Your task to perform on an android device: Check the weather Image 0: 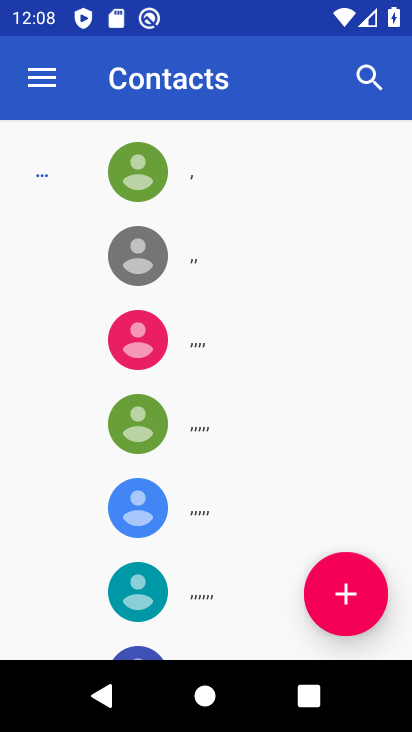
Step 0: press back button
Your task to perform on an android device: Check the weather Image 1: 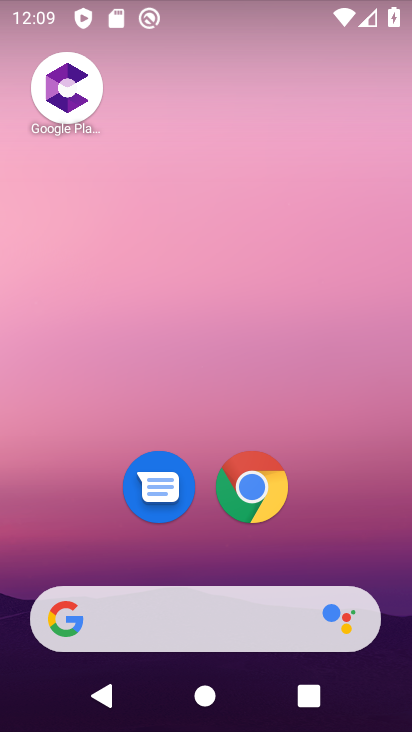
Step 1: click (188, 634)
Your task to perform on an android device: Check the weather Image 2: 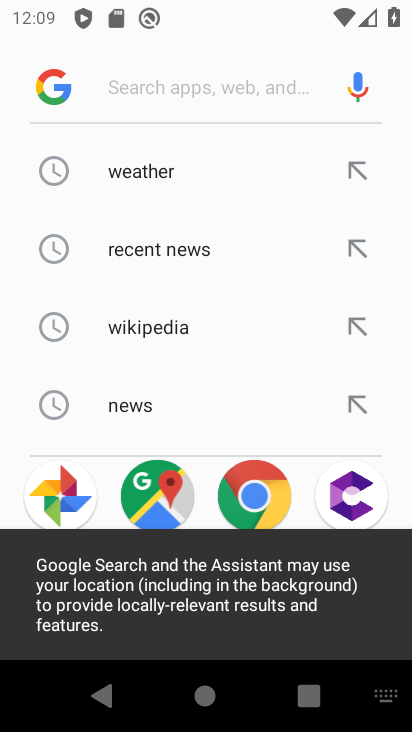
Step 2: click (144, 176)
Your task to perform on an android device: Check the weather Image 3: 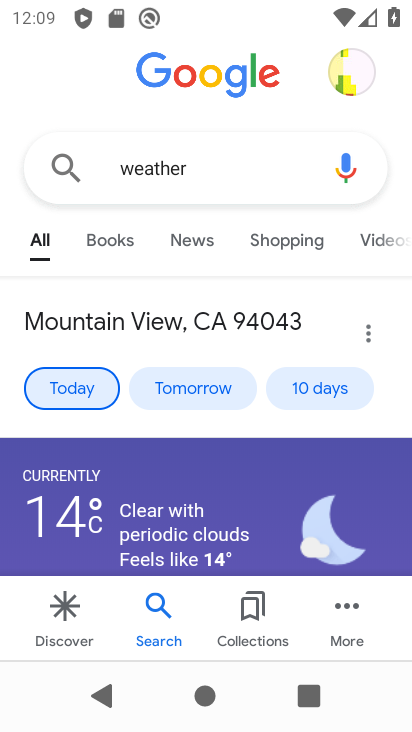
Step 3: task complete